Your task to perform on an android device: toggle javascript in the chrome app Image 0: 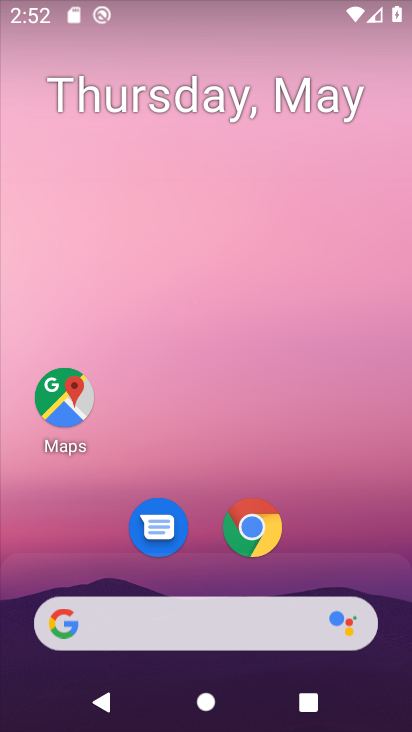
Step 0: click (277, 535)
Your task to perform on an android device: toggle javascript in the chrome app Image 1: 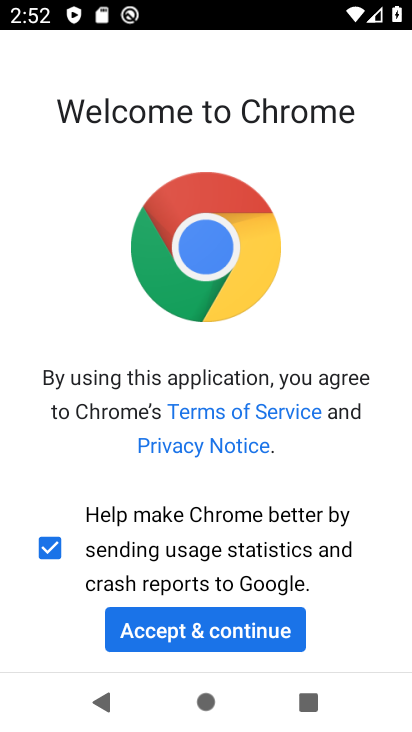
Step 1: click (246, 622)
Your task to perform on an android device: toggle javascript in the chrome app Image 2: 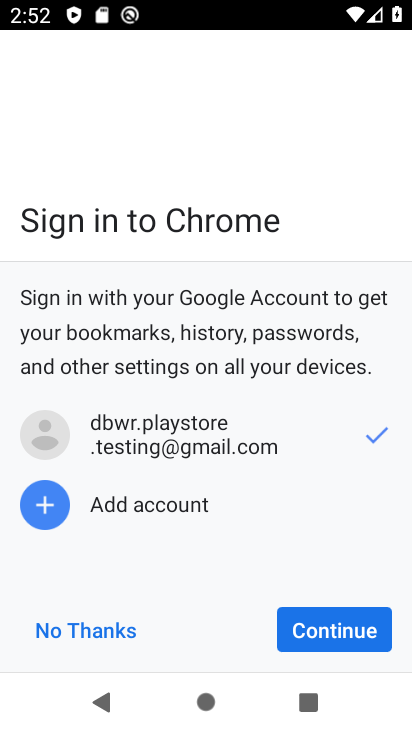
Step 2: click (342, 644)
Your task to perform on an android device: toggle javascript in the chrome app Image 3: 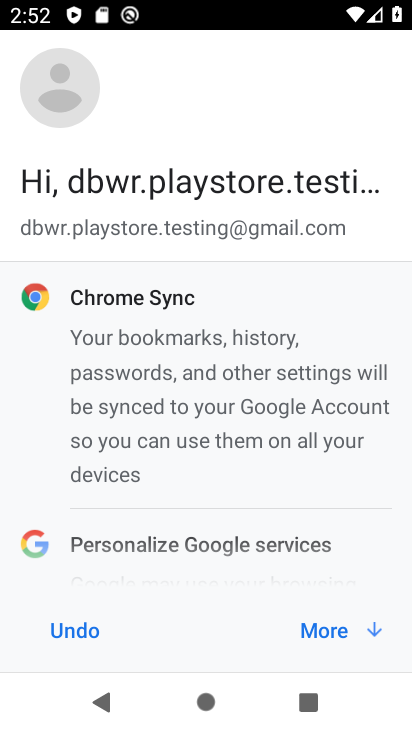
Step 3: click (338, 642)
Your task to perform on an android device: toggle javascript in the chrome app Image 4: 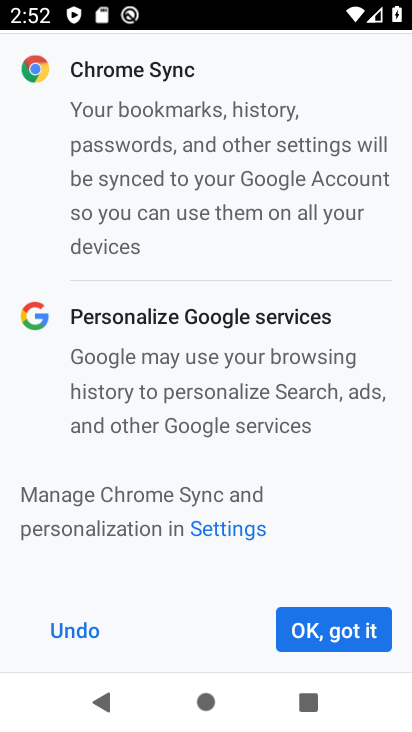
Step 4: click (332, 634)
Your task to perform on an android device: toggle javascript in the chrome app Image 5: 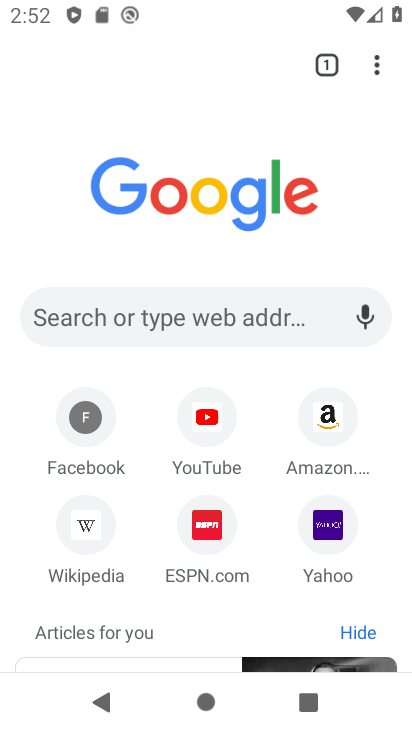
Step 5: drag from (377, 71) to (262, 536)
Your task to perform on an android device: toggle javascript in the chrome app Image 6: 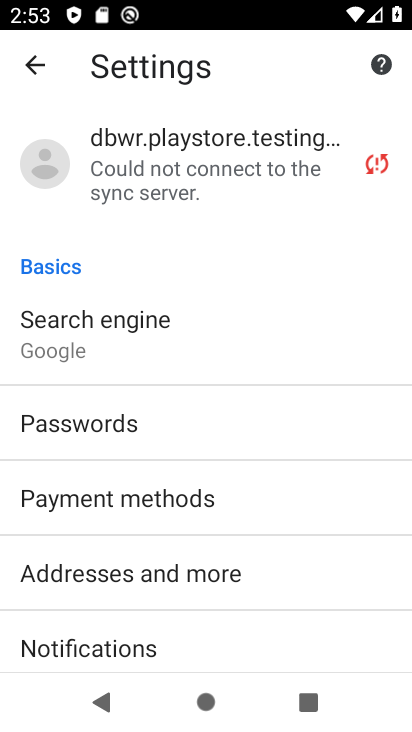
Step 6: drag from (176, 603) to (311, 121)
Your task to perform on an android device: toggle javascript in the chrome app Image 7: 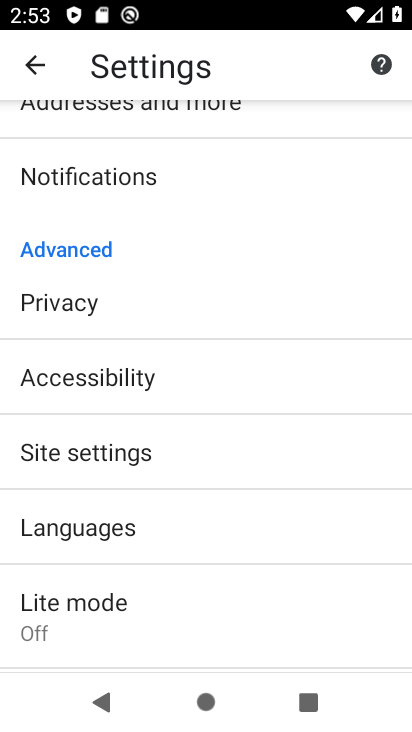
Step 7: click (169, 450)
Your task to perform on an android device: toggle javascript in the chrome app Image 8: 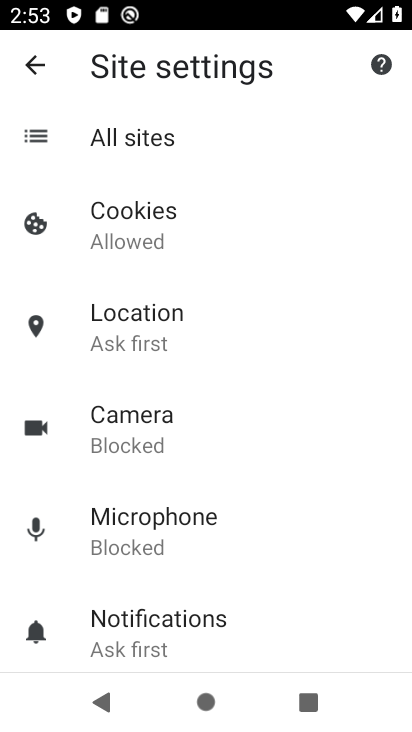
Step 8: drag from (140, 589) to (228, 233)
Your task to perform on an android device: toggle javascript in the chrome app Image 9: 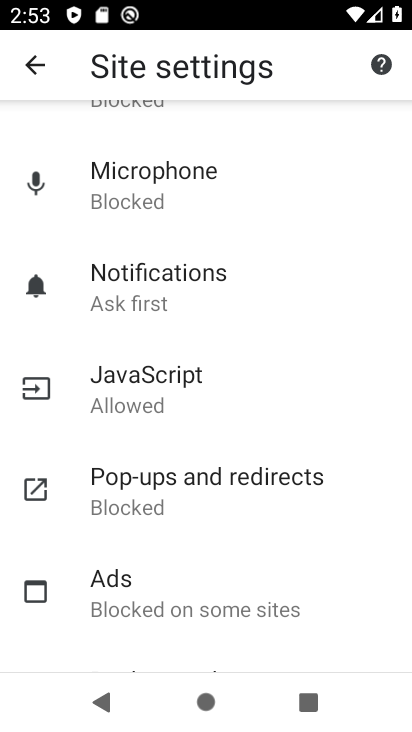
Step 9: click (174, 403)
Your task to perform on an android device: toggle javascript in the chrome app Image 10: 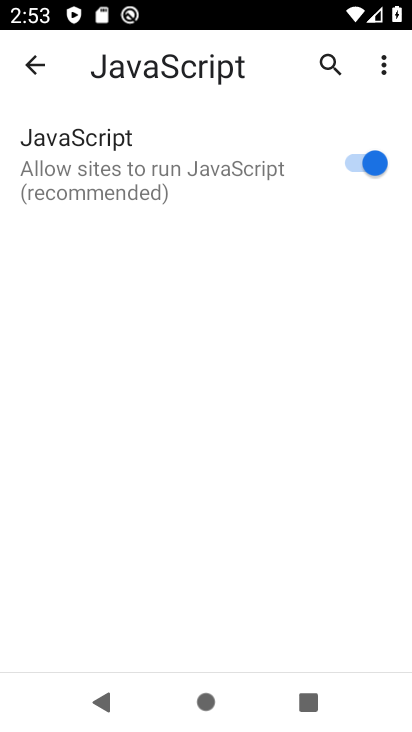
Step 10: click (356, 164)
Your task to perform on an android device: toggle javascript in the chrome app Image 11: 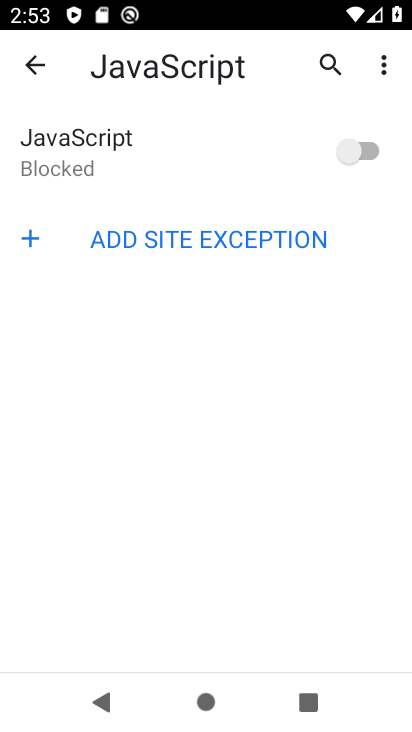
Step 11: task complete